Your task to perform on an android device: Check the settings for the Google Chrome app Image 0: 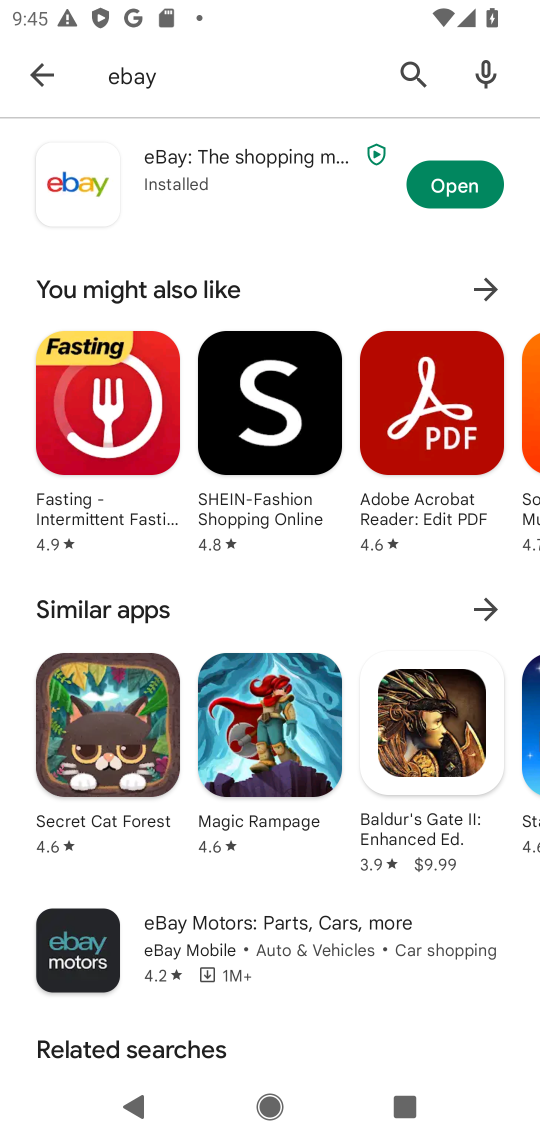
Step 0: press home button
Your task to perform on an android device: Check the settings for the Google Chrome app Image 1: 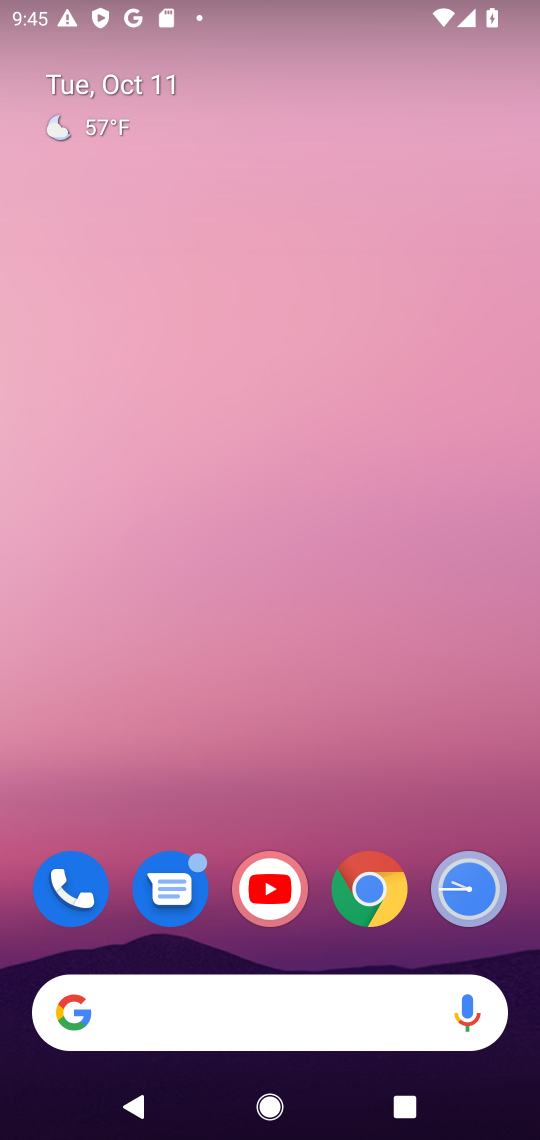
Step 1: click (375, 887)
Your task to perform on an android device: Check the settings for the Google Chrome app Image 2: 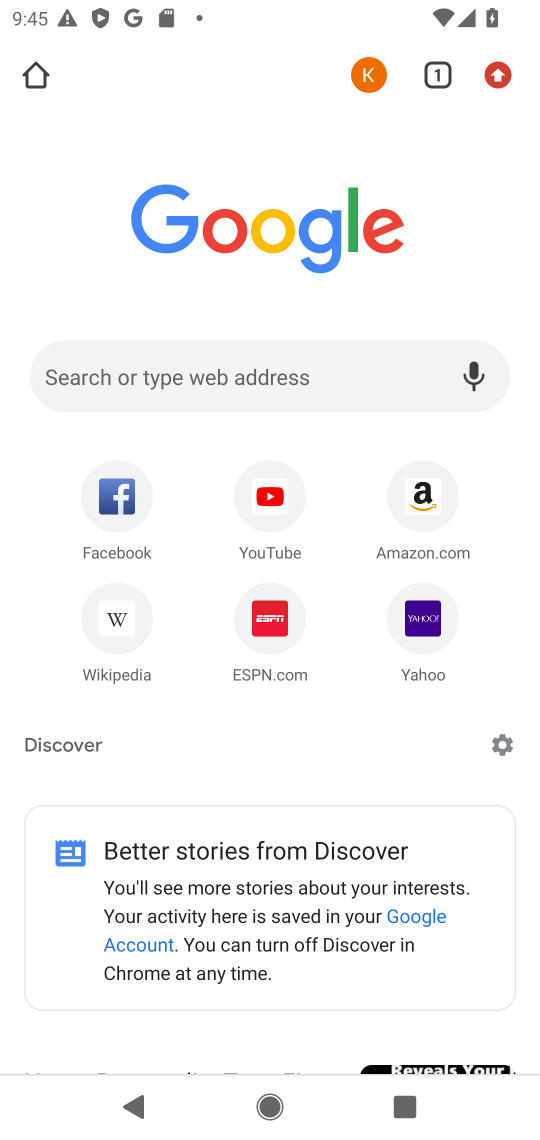
Step 2: task complete